Your task to perform on an android device: Open location settings Image 0: 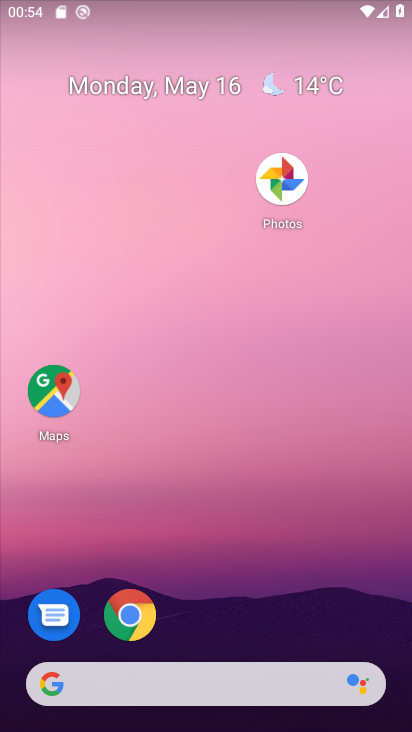
Step 0: drag from (300, 594) to (254, 232)
Your task to perform on an android device: Open location settings Image 1: 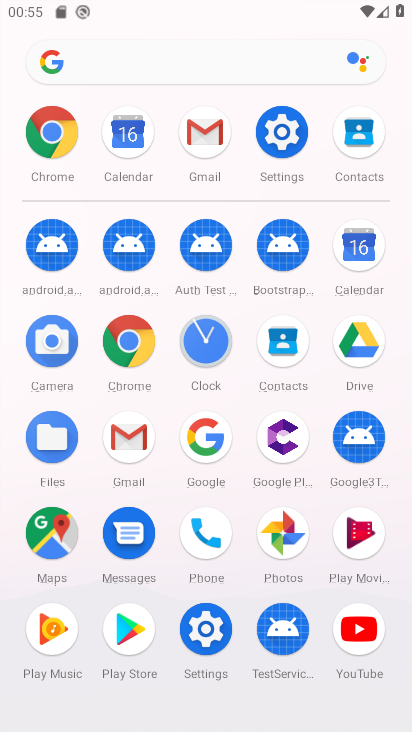
Step 1: click (208, 628)
Your task to perform on an android device: Open location settings Image 2: 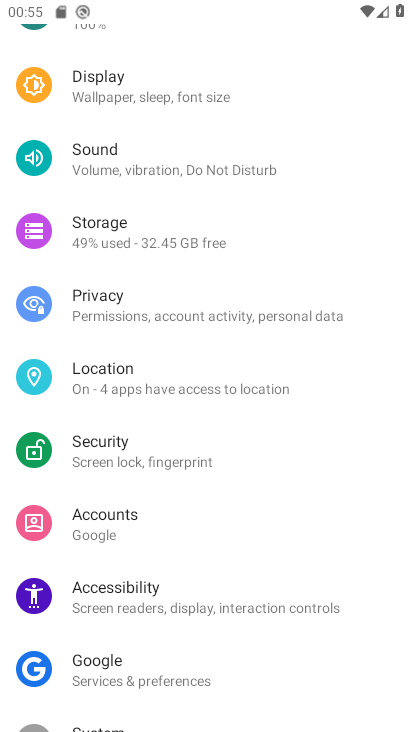
Step 2: drag from (251, 635) to (263, 390)
Your task to perform on an android device: Open location settings Image 3: 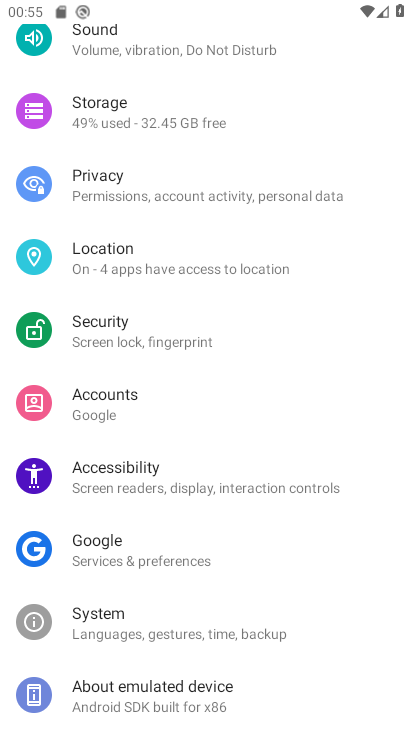
Step 3: click (213, 265)
Your task to perform on an android device: Open location settings Image 4: 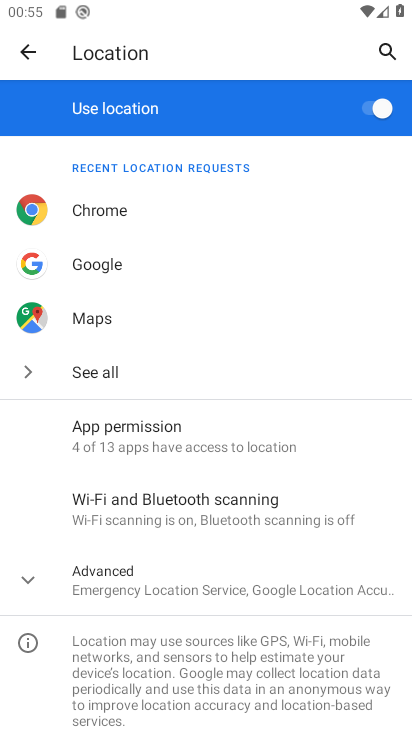
Step 4: click (212, 590)
Your task to perform on an android device: Open location settings Image 5: 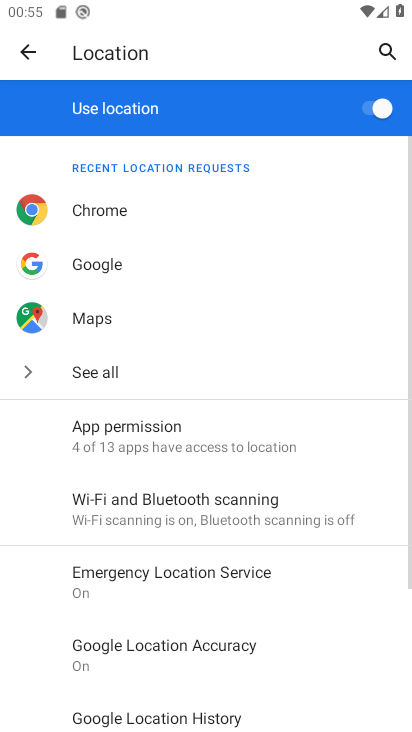
Step 5: task complete